Your task to perform on an android device: Open privacy settings Image 0: 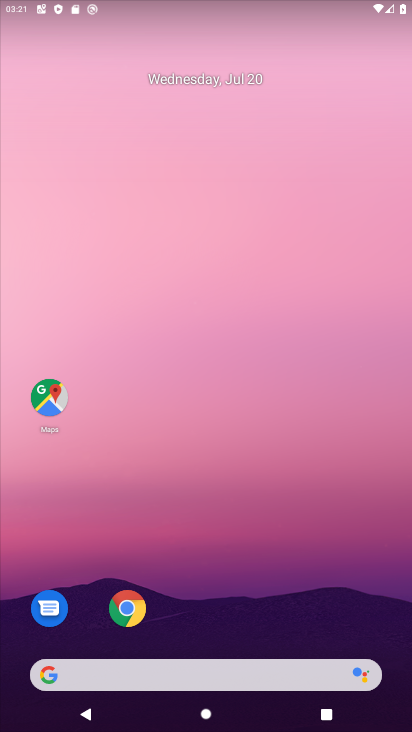
Step 0: drag from (387, 719) to (286, 55)
Your task to perform on an android device: Open privacy settings Image 1: 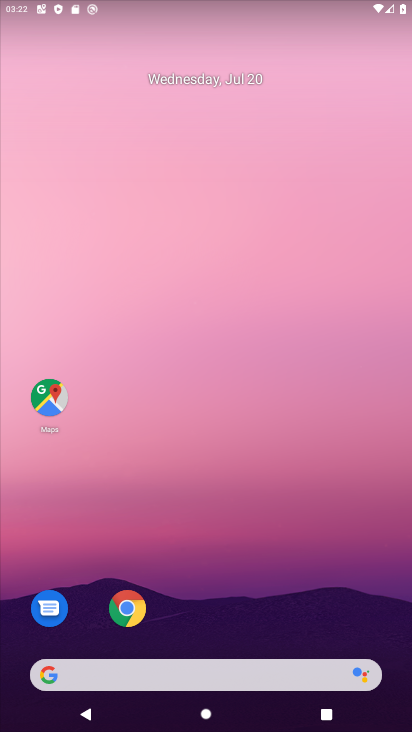
Step 1: drag from (390, 715) to (301, 38)
Your task to perform on an android device: Open privacy settings Image 2: 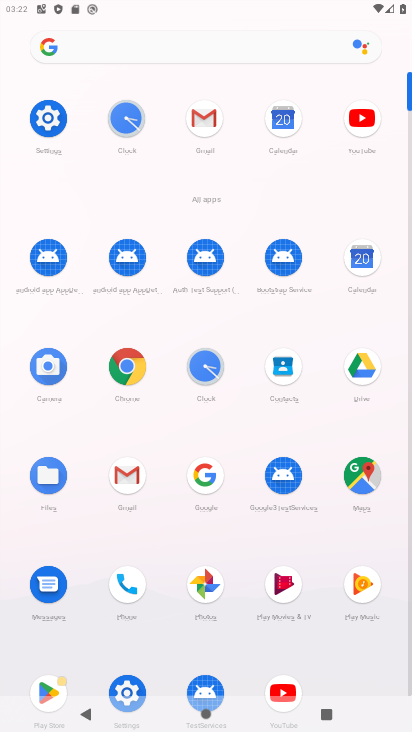
Step 2: click (28, 112)
Your task to perform on an android device: Open privacy settings Image 3: 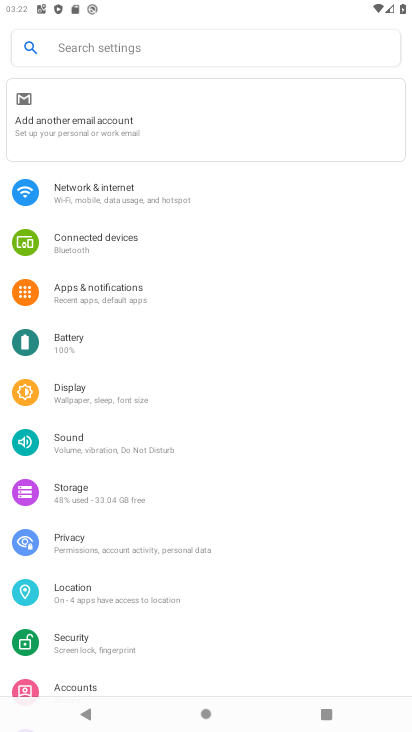
Step 3: click (66, 531)
Your task to perform on an android device: Open privacy settings Image 4: 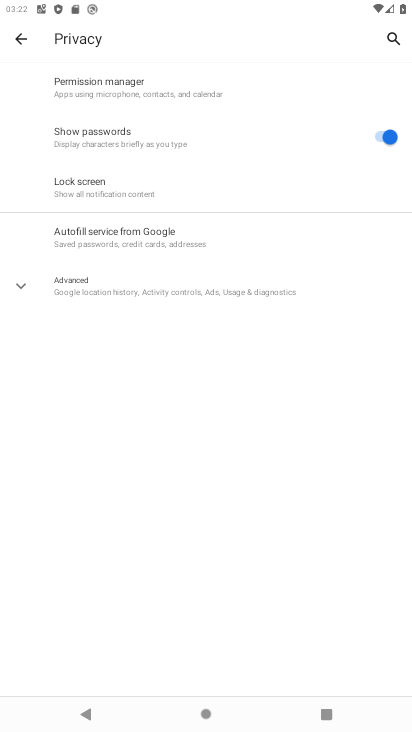
Step 4: task complete